Your task to perform on an android device: add a contact in the contacts app Image 0: 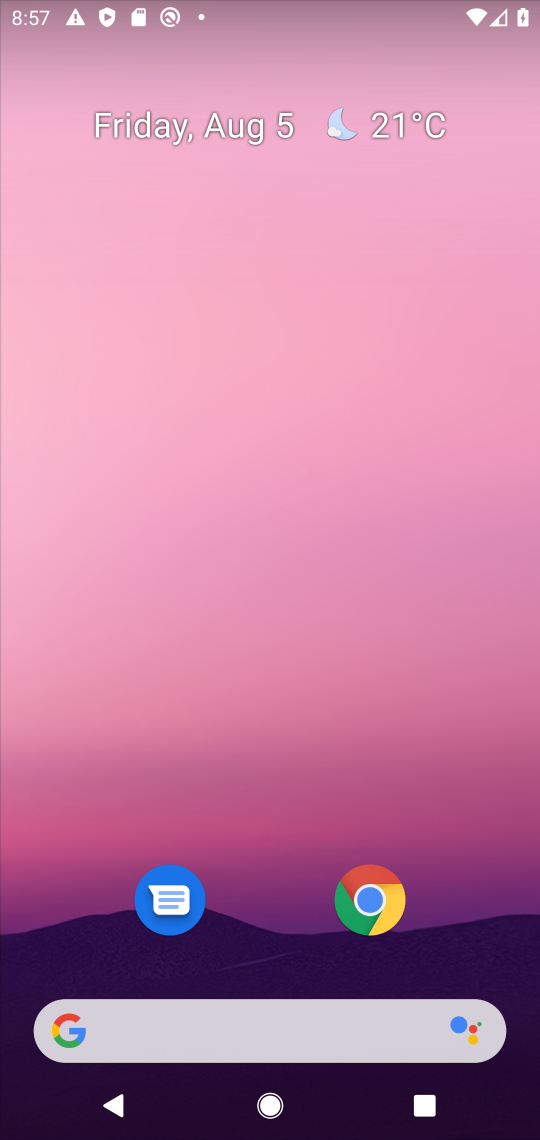
Step 0: press home button
Your task to perform on an android device: add a contact in the contacts app Image 1: 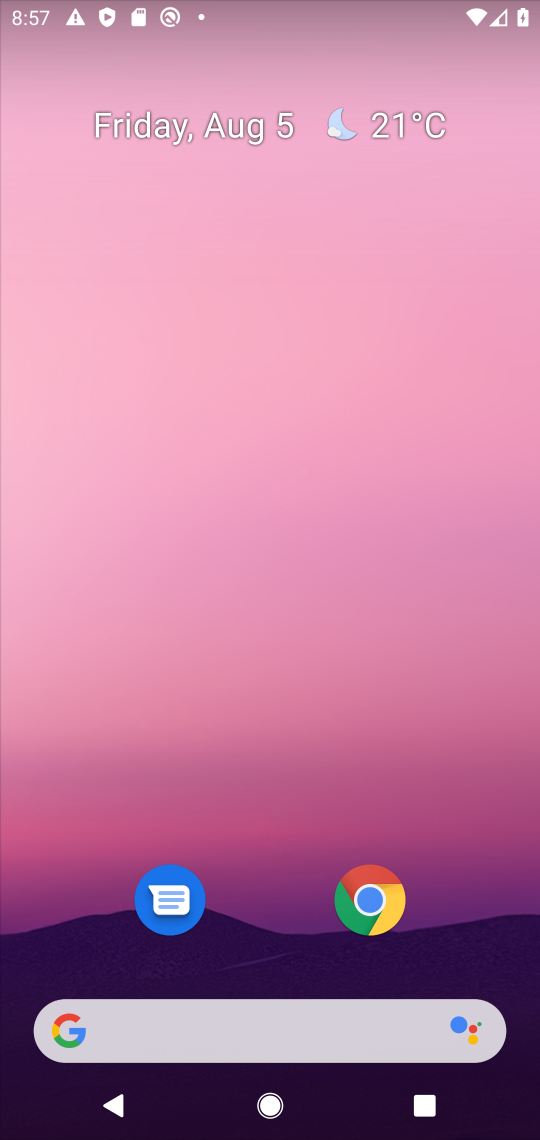
Step 1: drag from (331, 935) to (294, 159)
Your task to perform on an android device: add a contact in the contacts app Image 2: 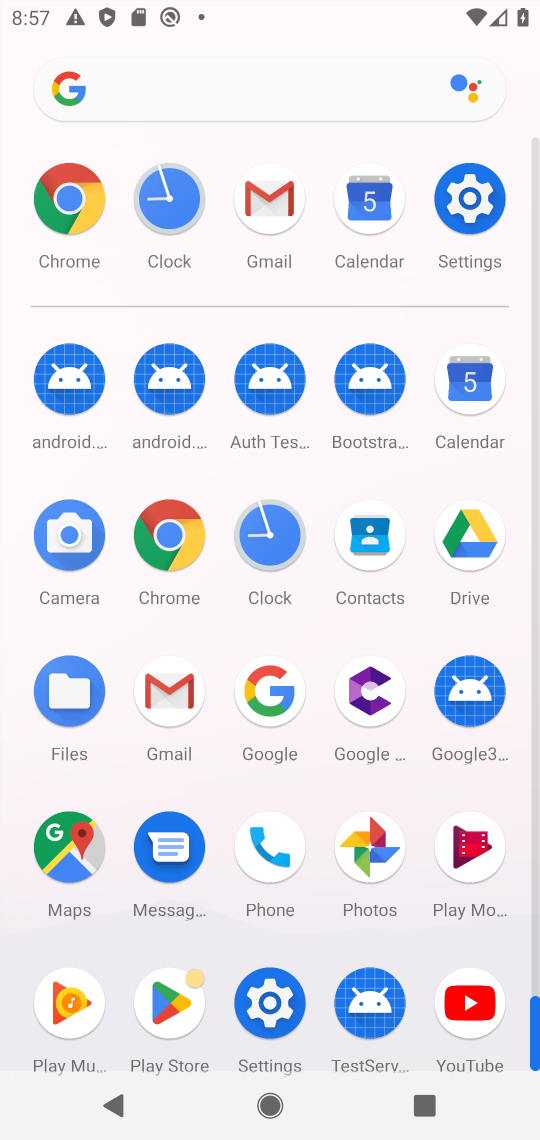
Step 2: click (373, 535)
Your task to perform on an android device: add a contact in the contacts app Image 3: 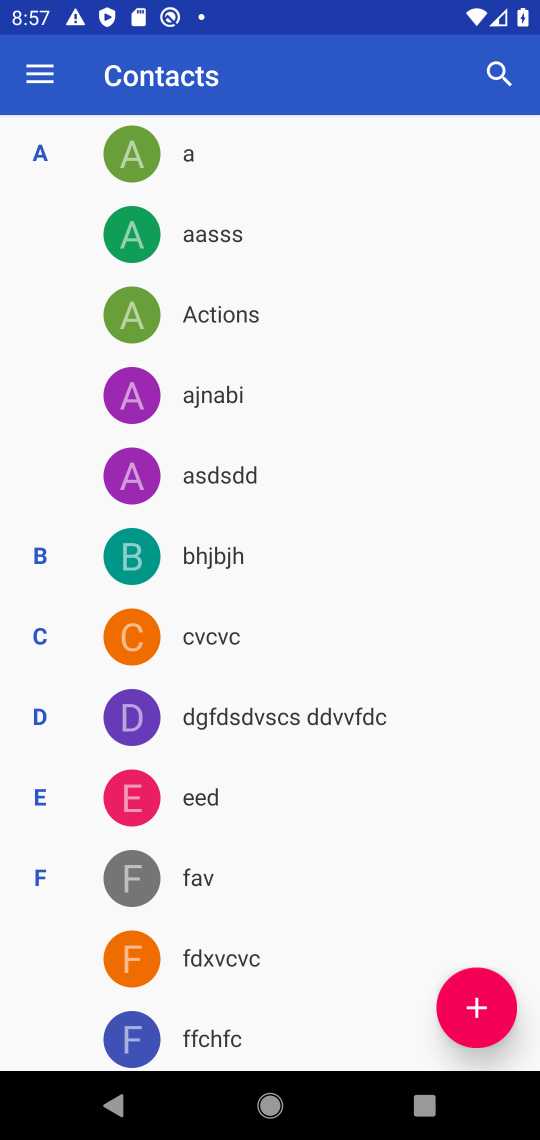
Step 3: click (490, 1003)
Your task to perform on an android device: add a contact in the contacts app Image 4: 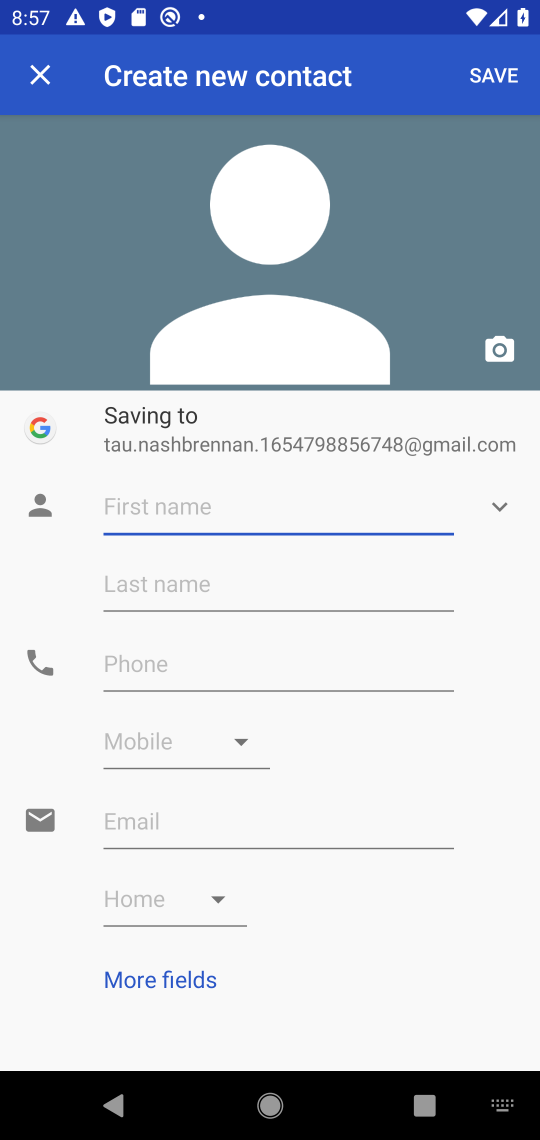
Step 4: type "TTt"
Your task to perform on an android device: add a contact in the contacts app Image 5: 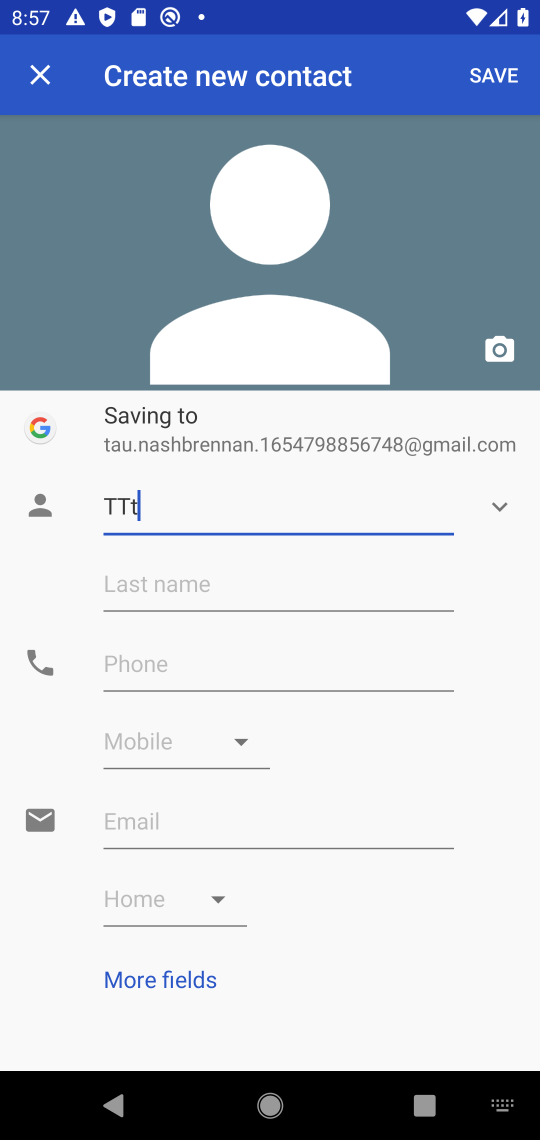
Step 5: click (168, 592)
Your task to perform on an android device: add a contact in the contacts app Image 6: 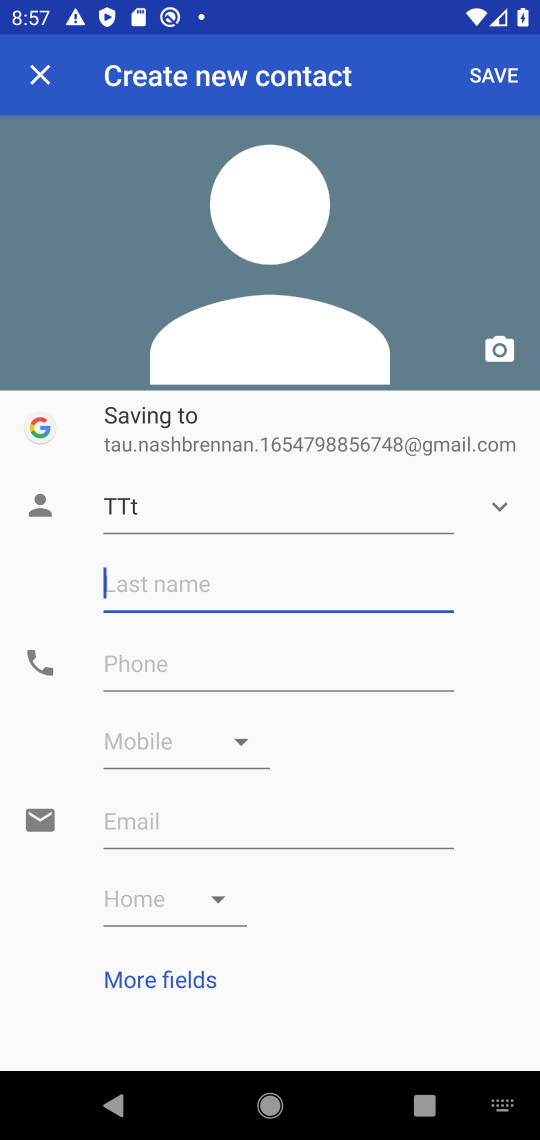
Step 6: type "vvivak"
Your task to perform on an android device: add a contact in the contacts app Image 7: 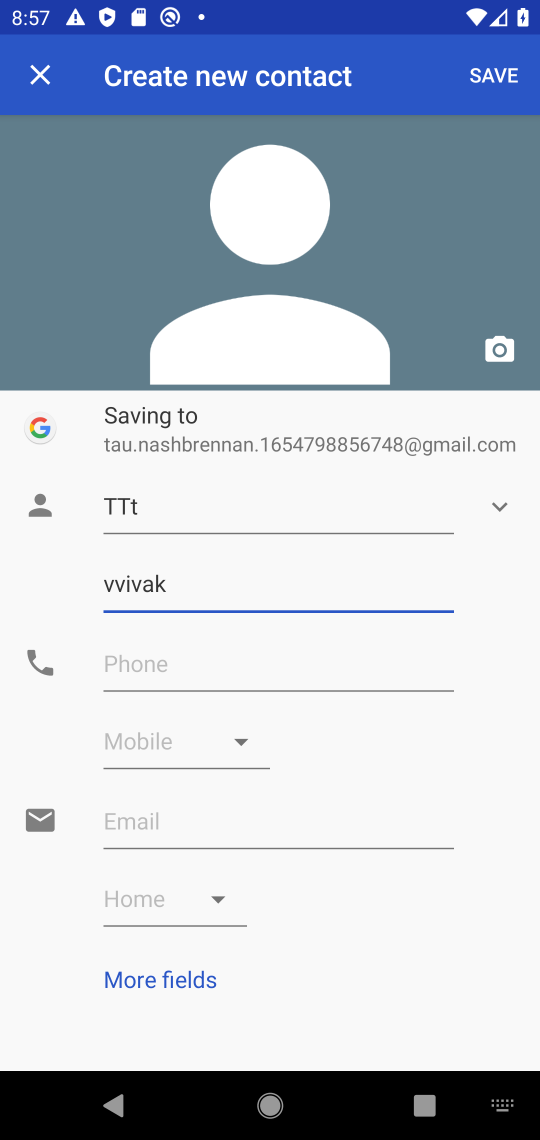
Step 7: click (140, 658)
Your task to perform on an android device: add a contact in the contacts app Image 8: 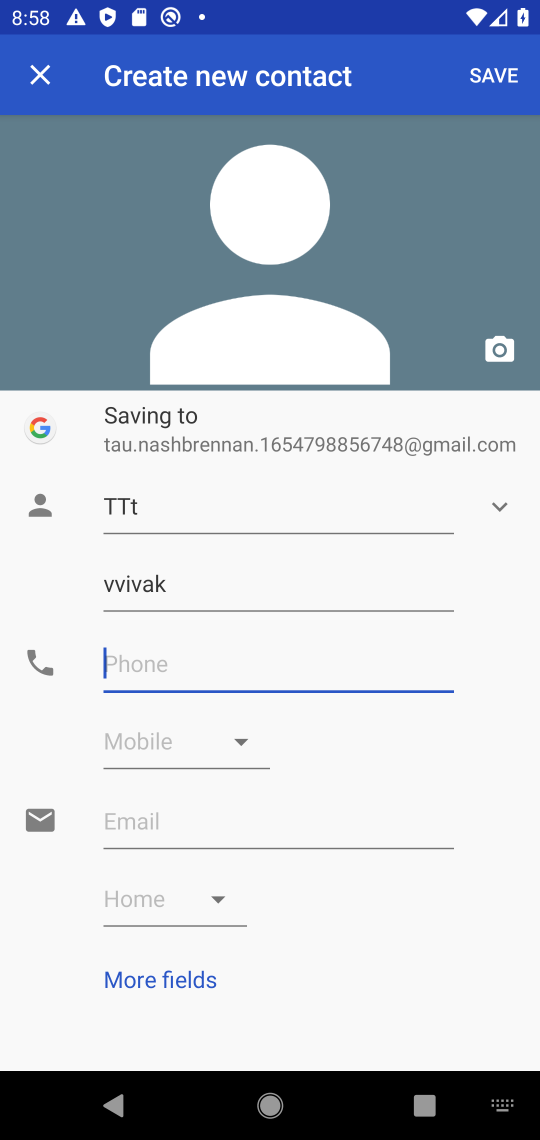
Step 8: type "102837465"
Your task to perform on an android device: add a contact in the contacts app Image 9: 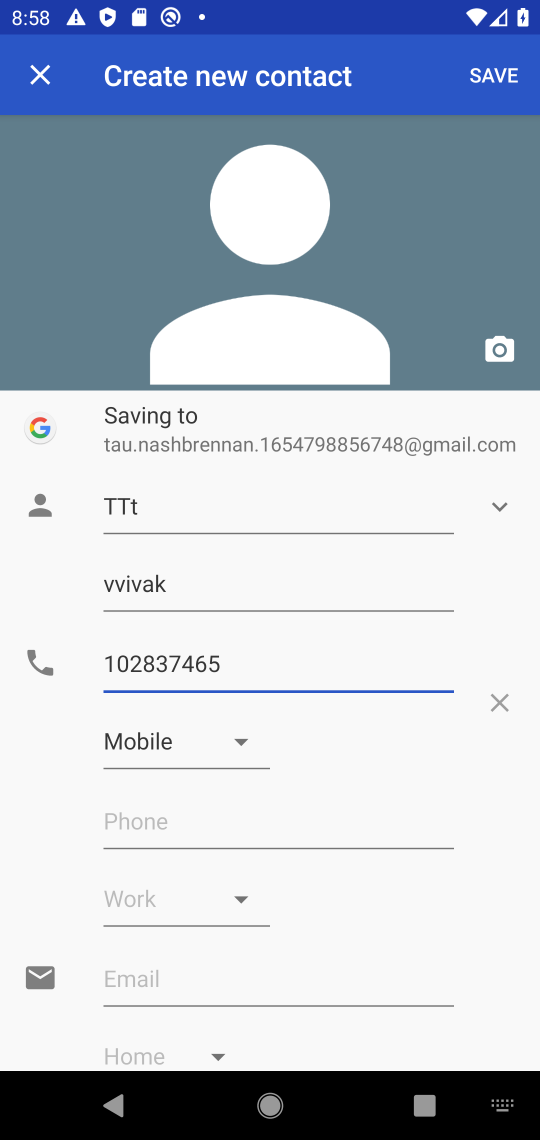
Step 9: click (486, 54)
Your task to perform on an android device: add a contact in the contacts app Image 10: 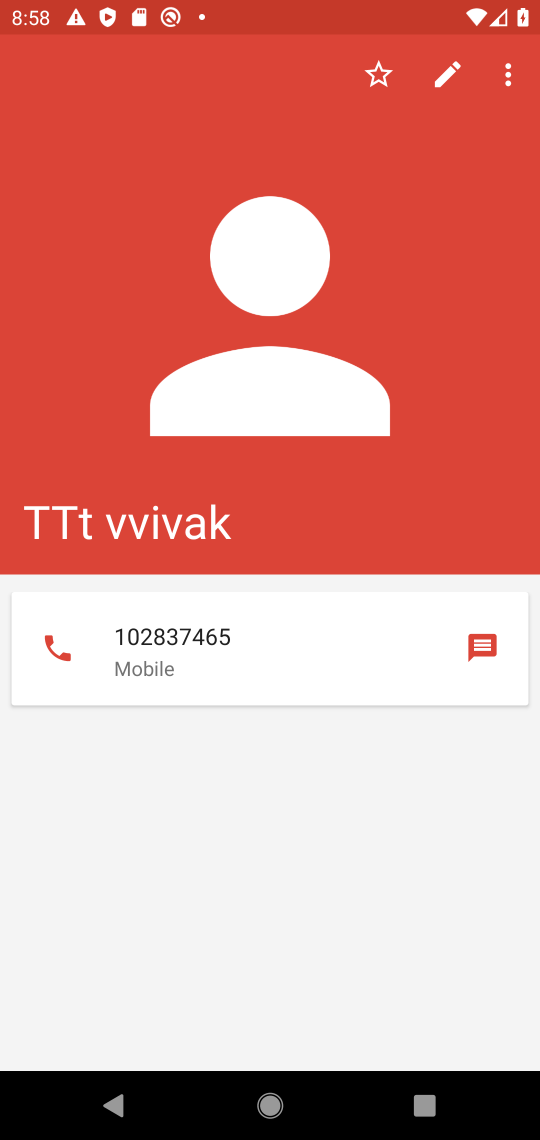
Step 10: task complete